Your task to perform on an android device: check google app version Image 0: 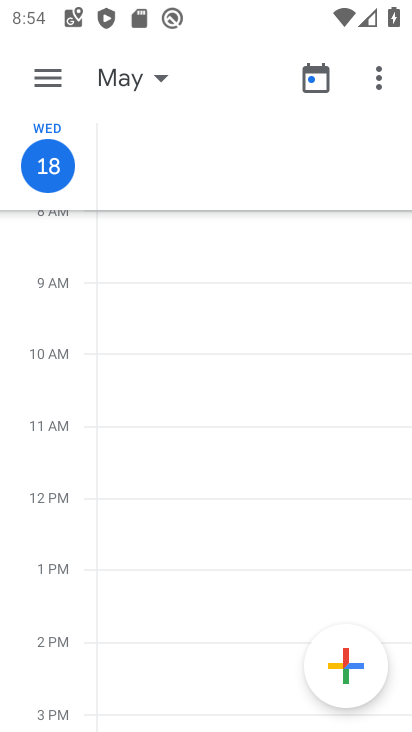
Step 0: press home button
Your task to perform on an android device: check google app version Image 1: 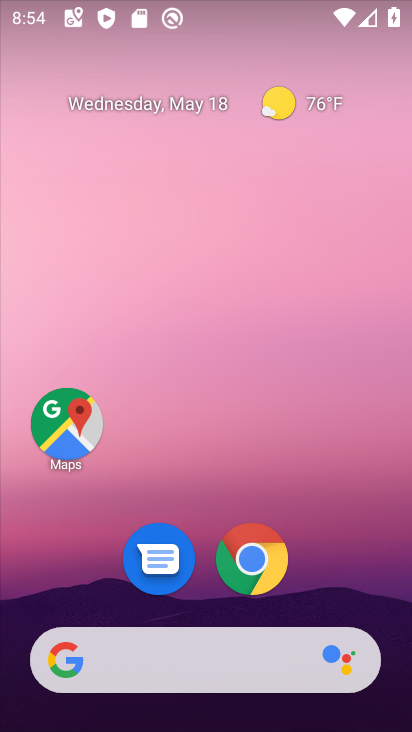
Step 1: drag from (203, 583) to (194, 119)
Your task to perform on an android device: check google app version Image 2: 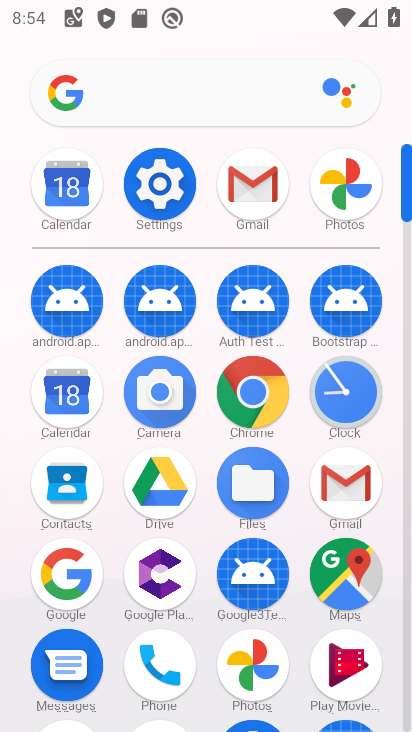
Step 2: click (72, 579)
Your task to perform on an android device: check google app version Image 3: 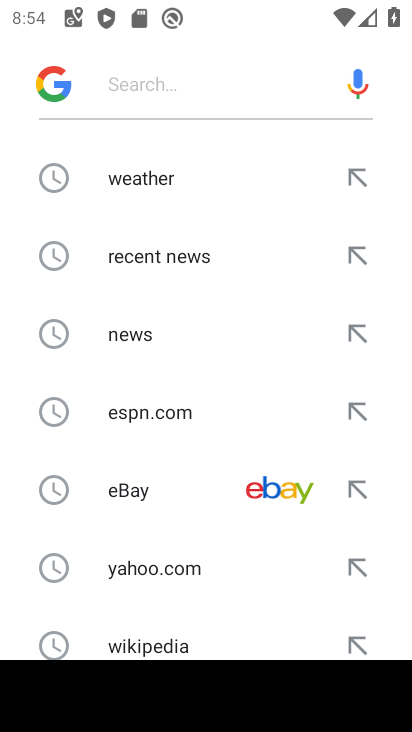
Step 3: press back button
Your task to perform on an android device: check google app version Image 4: 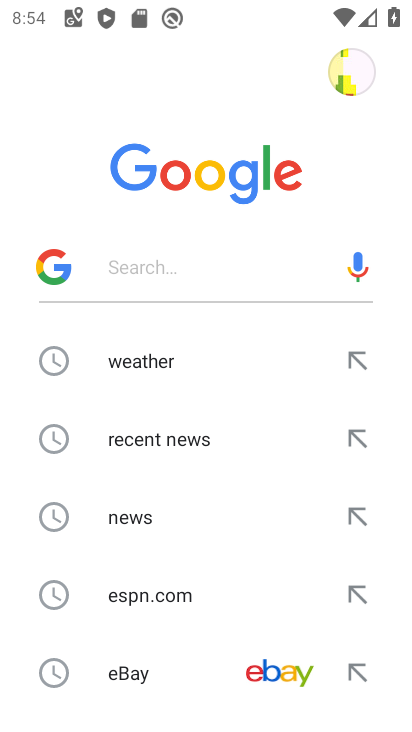
Step 4: press back button
Your task to perform on an android device: check google app version Image 5: 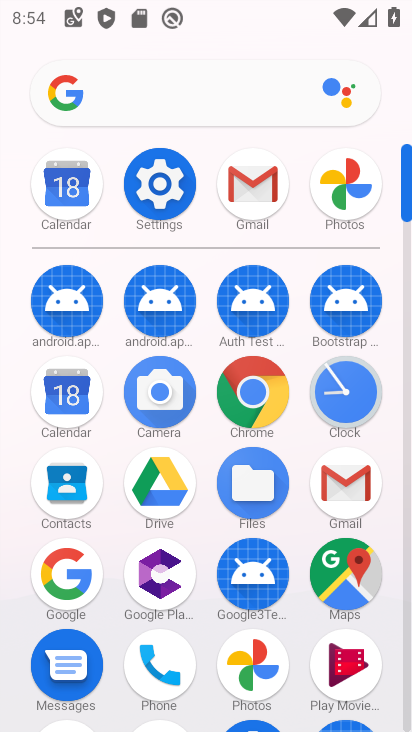
Step 5: click (72, 579)
Your task to perform on an android device: check google app version Image 6: 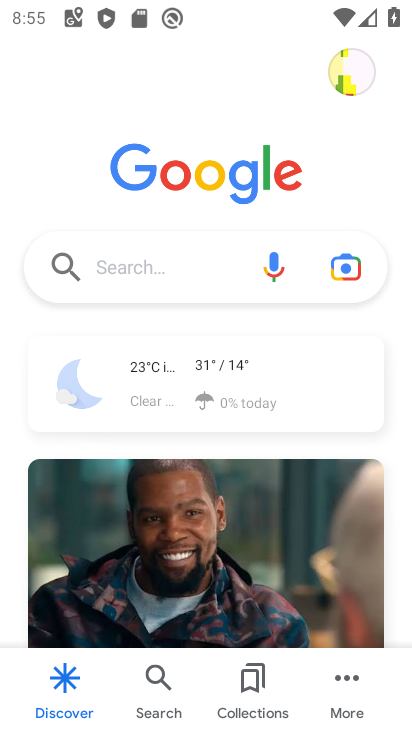
Step 6: click (345, 692)
Your task to perform on an android device: check google app version Image 7: 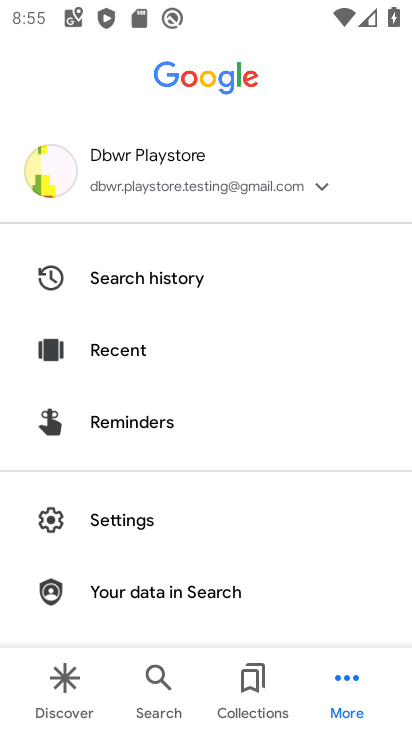
Step 7: click (125, 524)
Your task to perform on an android device: check google app version Image 8: 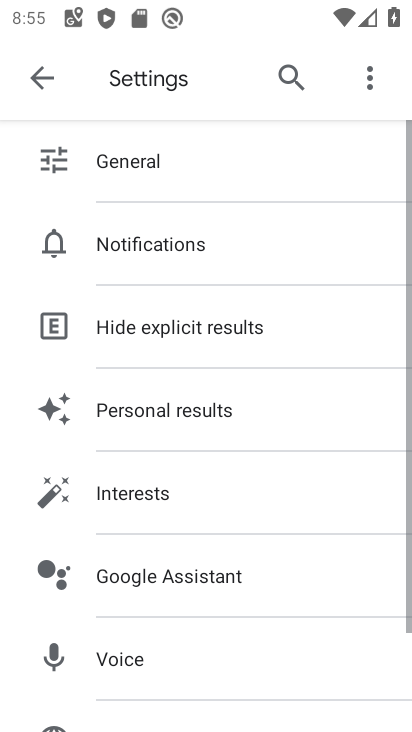
Step 8: drag from (217, 670) to (203, 157)
Your task to perform on an android device: check google app version Image 9: 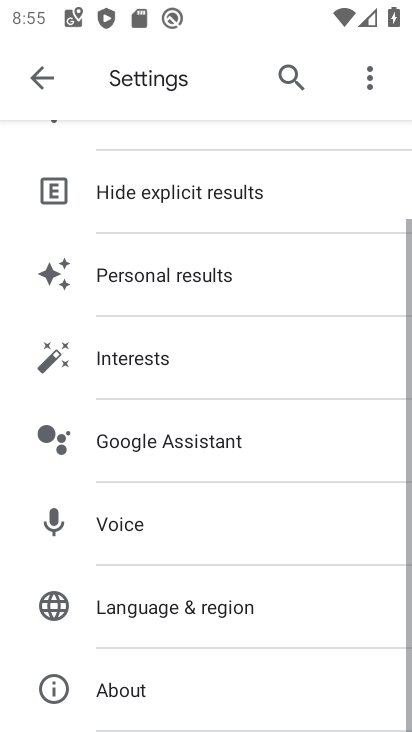
Step 9: click (101, 701)
Your task to perform on an android device: check google app version Image 10: 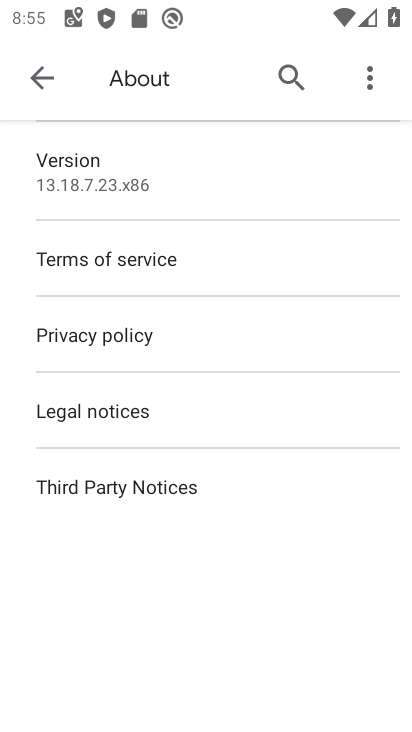
Step 10: task complete